Your task to perform on an android device: Go to Wikipedia Image 0: 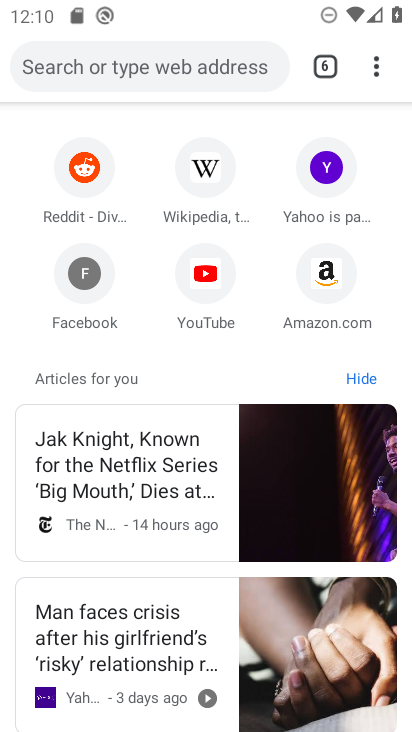
Step 0: click (204, 168)
Your task to perform on an android device: Go to Wikipedia Image 1: 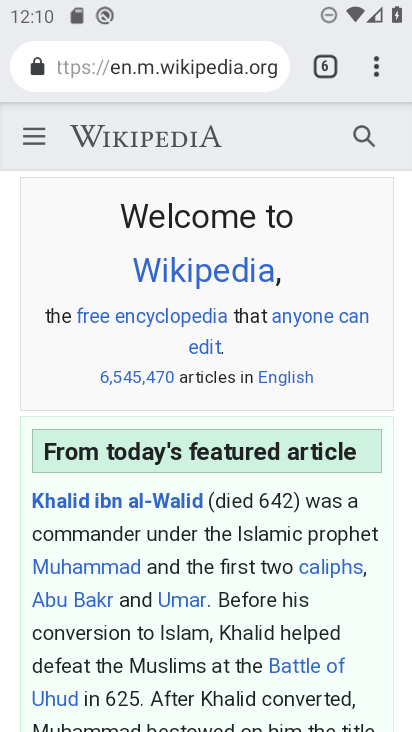
Step 1: task complete